Your task to perform on an android device: Go to Wikipedia Image 0: 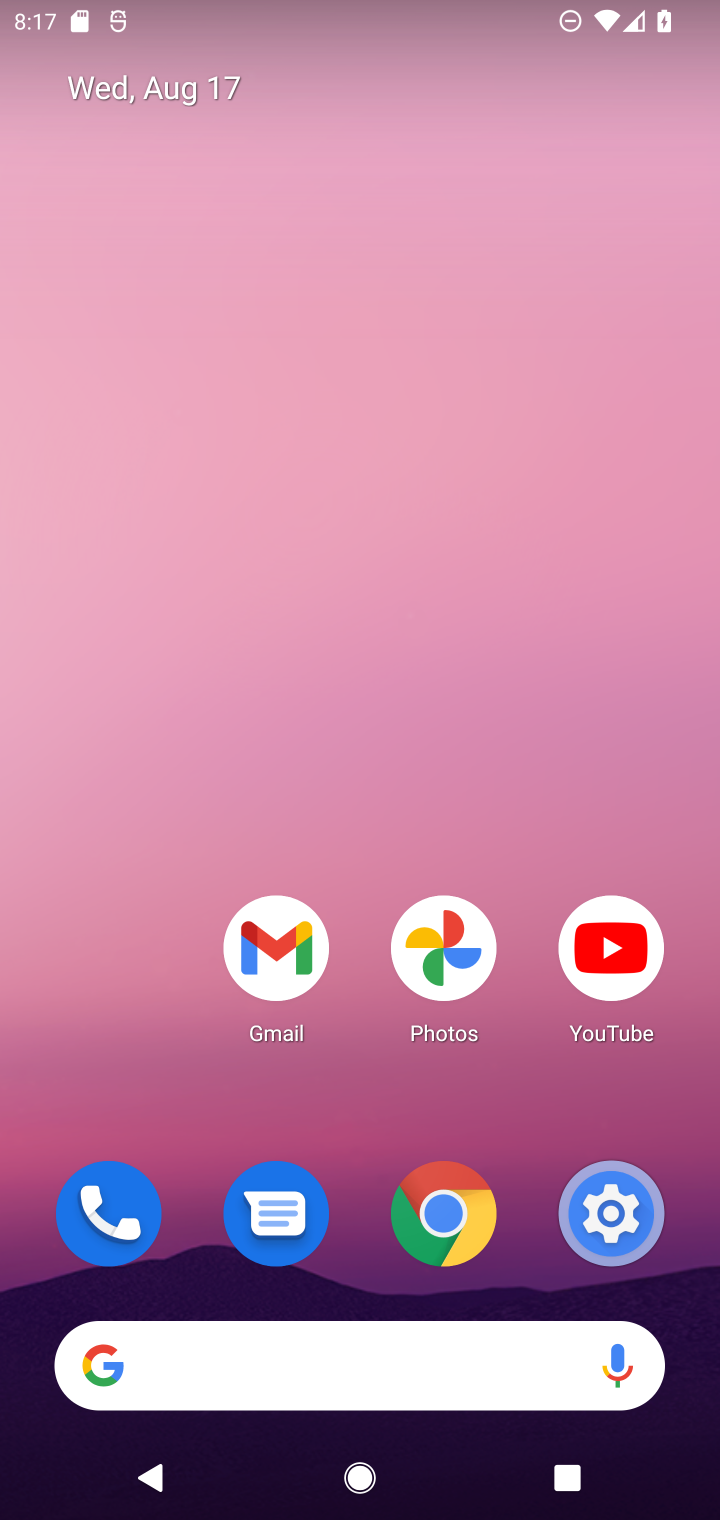
Step 0: click (485, 1227)
Your task to perform on an android device: Go to Wikipedia Image 1: 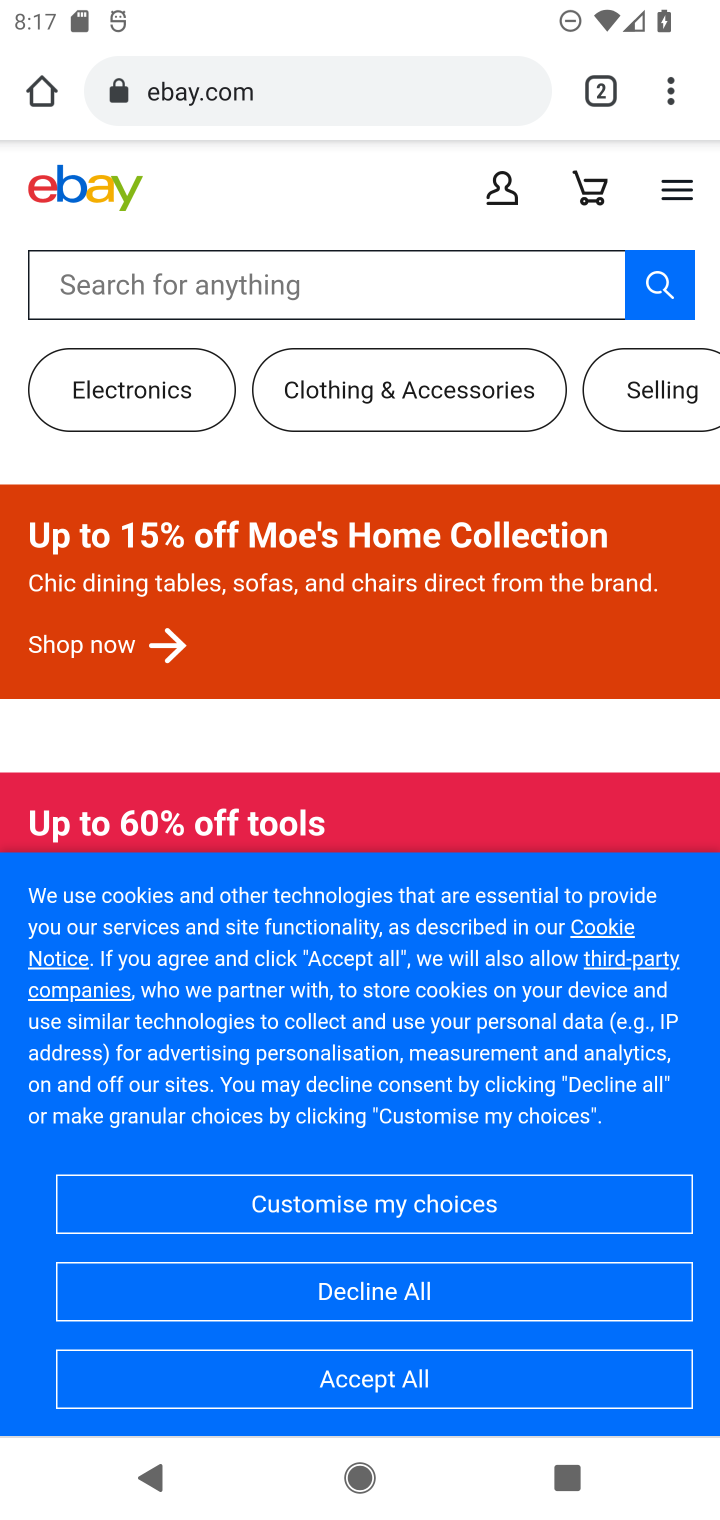
Step 1: click (303, 105)
Your task to perform on an android device: Go to Wikipedia Image 2: 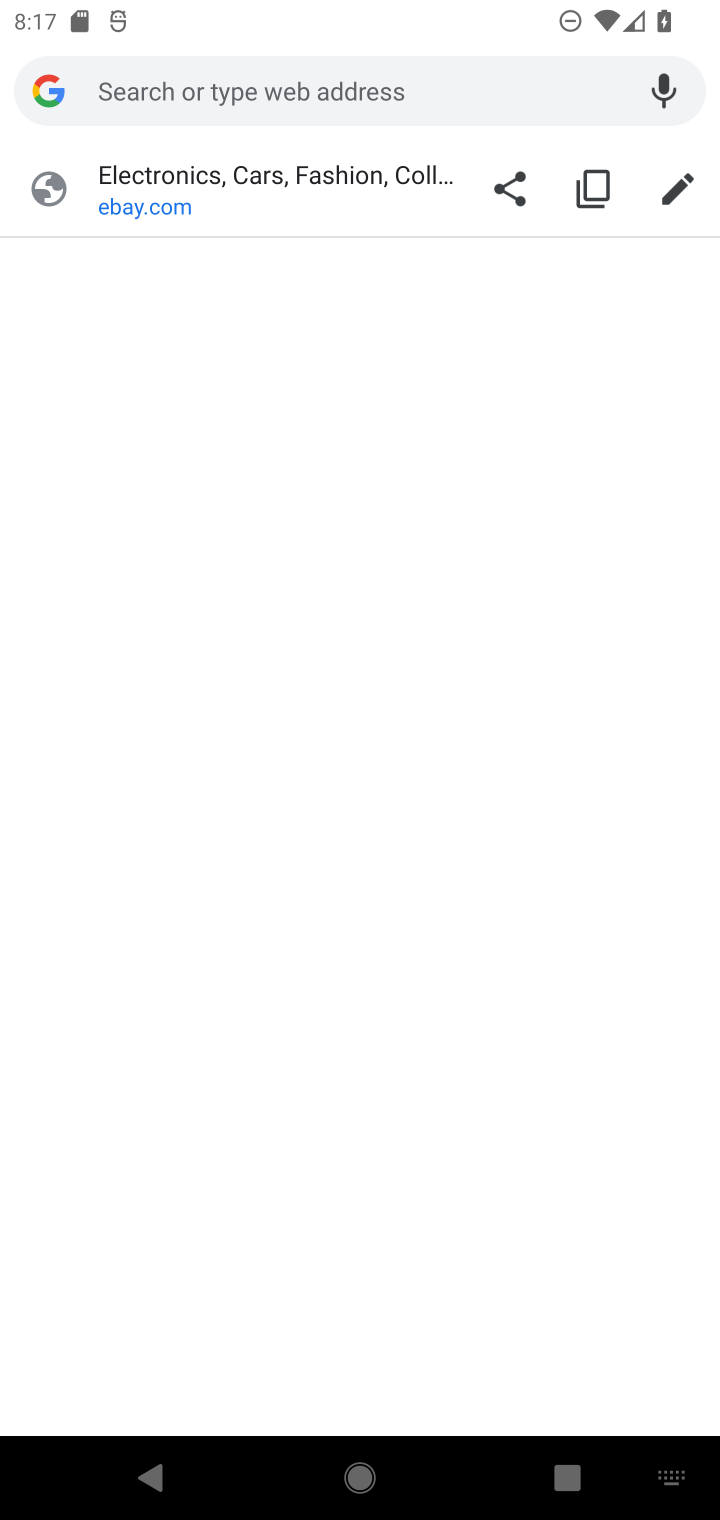
Step 2: type "wikipedia"
Your task to perform on an android device: Go to Wikipedia Image 3: 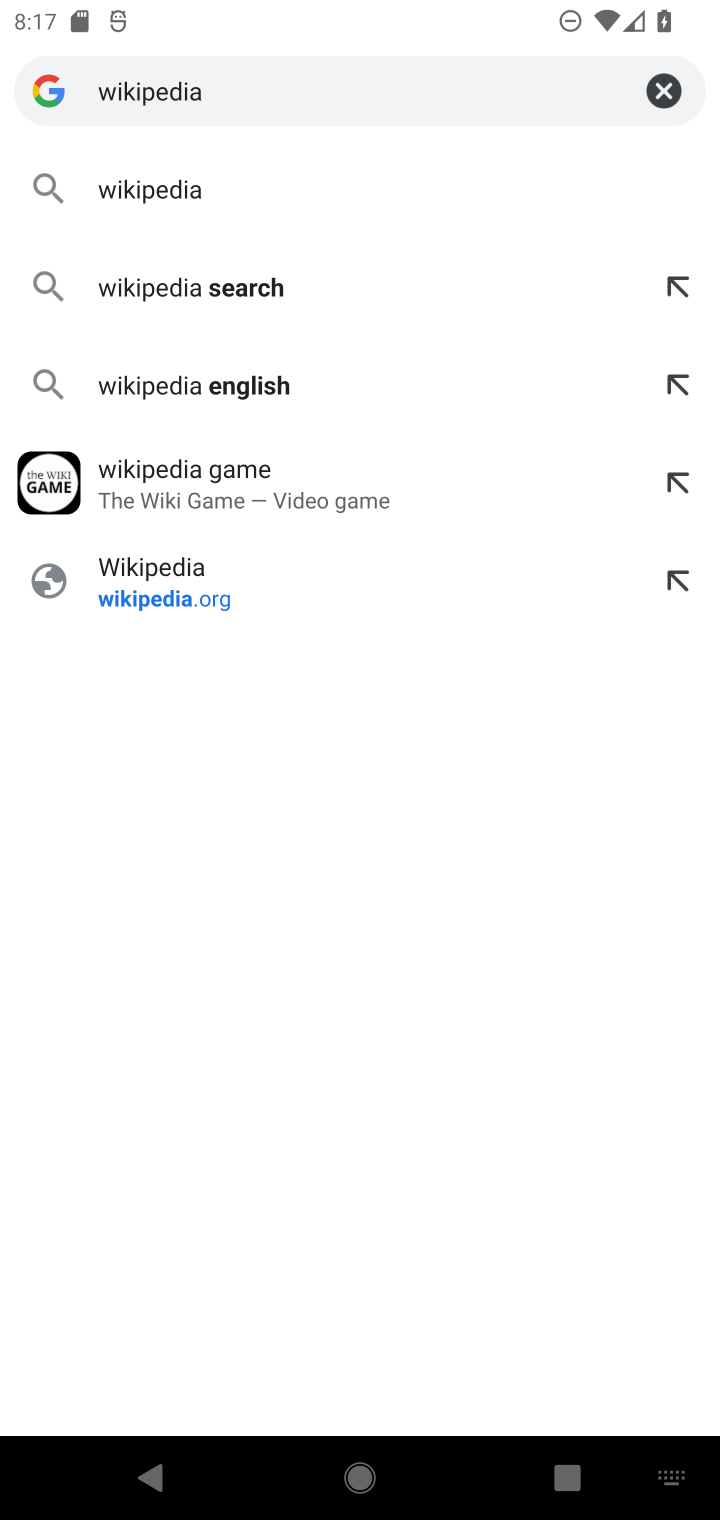
Step 3: click (266, 470)
Your task to perform on an android device: Go to Wikipedia Image 4: 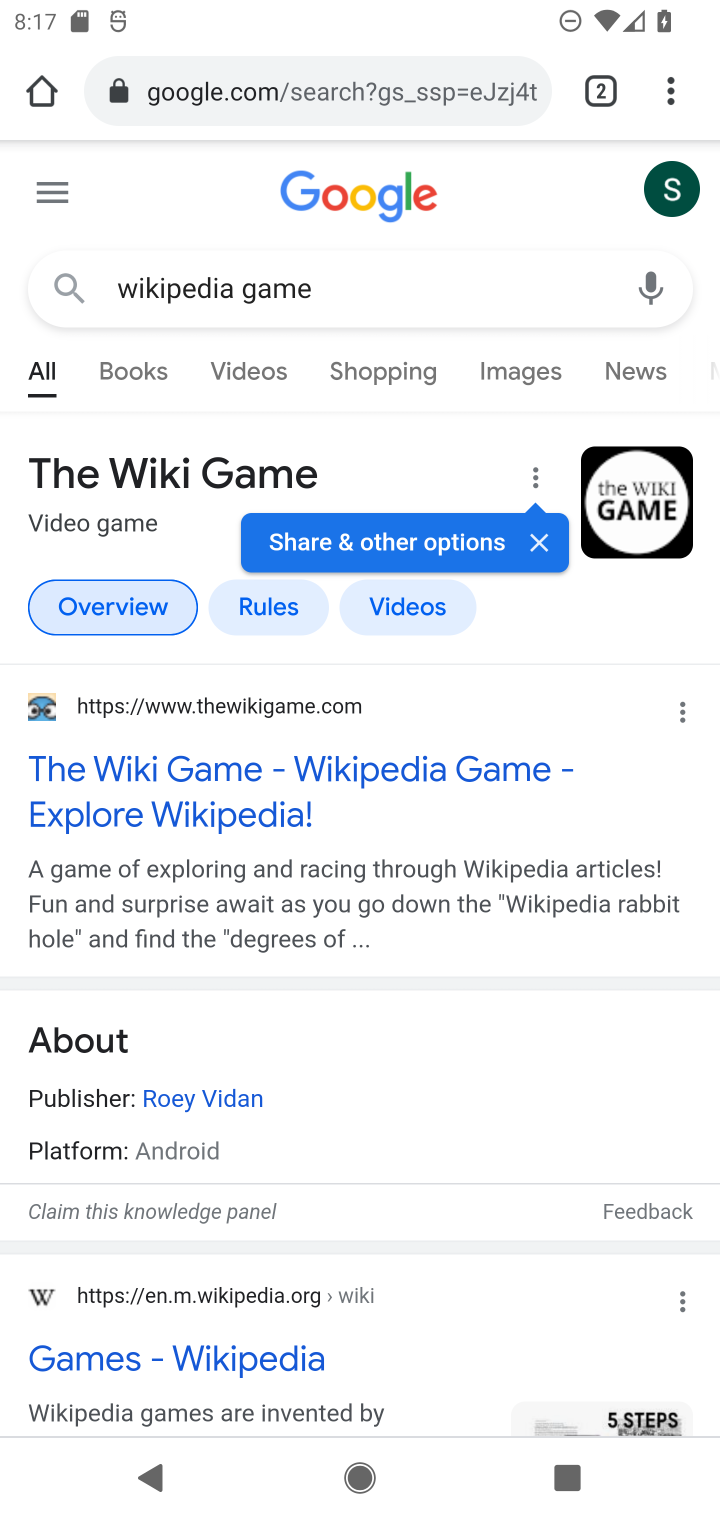
Step 4: click (288, 779)
Your task to perform on an android device: Go to Wikipedia Image 5: 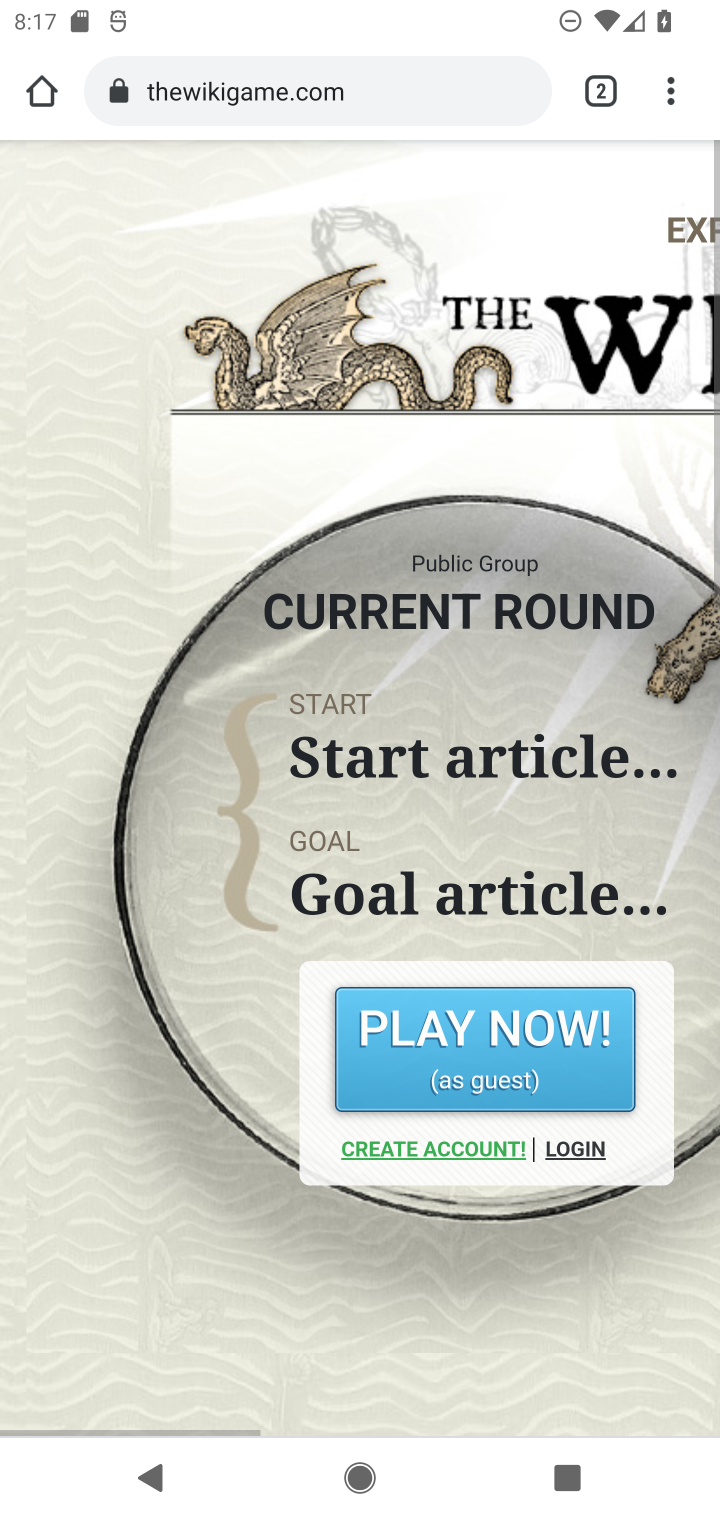
Step 5: task complete